Your task to perform on an android device: Open battery settings Image 0: 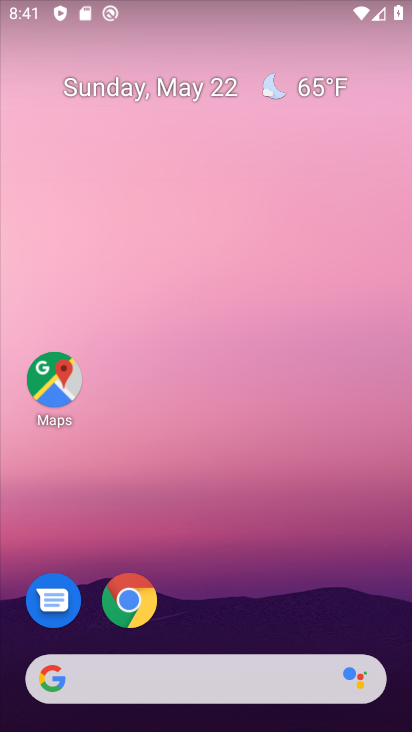
Step 0: drag from (206, 578) to (247, 209)
Your task to perform on an android device: Open battery settings Image 1: 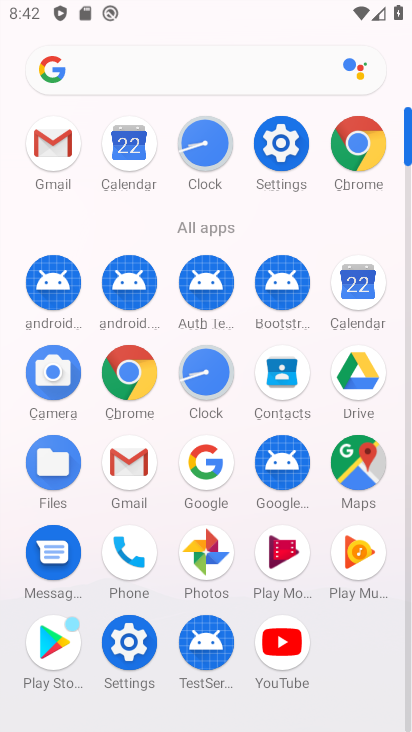
Step 1: click (133, 652)
Your task to perform on an android device: Open battery settings Image 2: 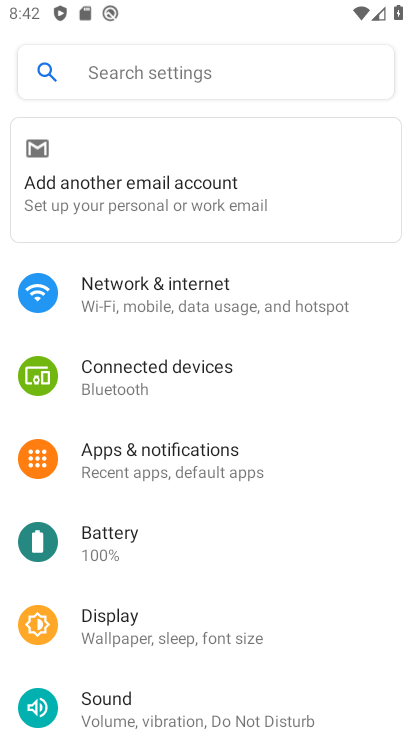
Step 2: click (108, 549)
Your task to perform on an android device: Open battery settings Image 3: 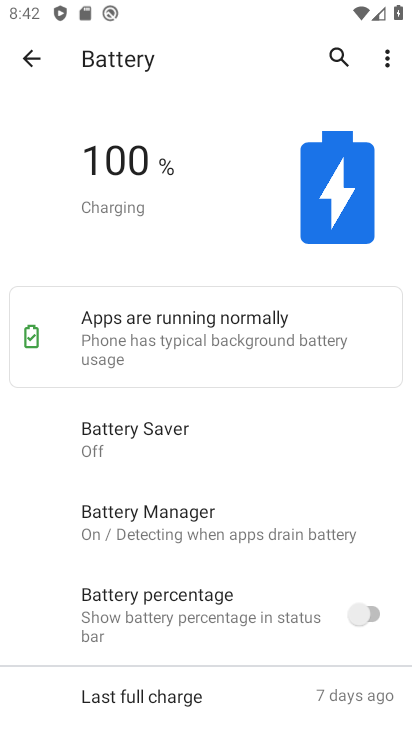
Step 3: task complete